Your task to perform on an android device: Show me the alarms in the clock app Image 0: 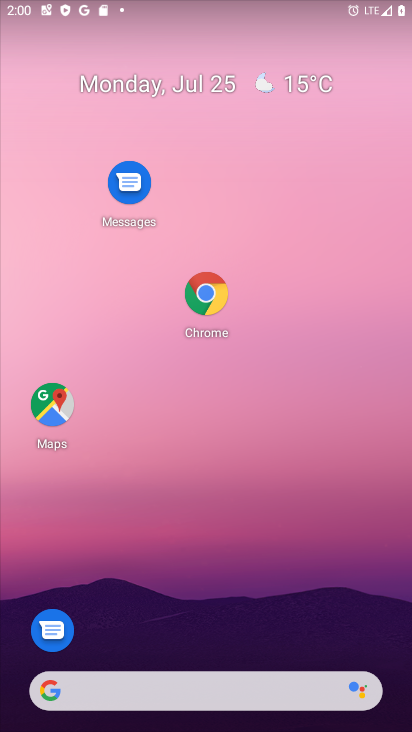
Step 0: drag from (278, 590) to (371, 11)
Your task to perform on an android device: Show me the alarms in the clock app Image 1: 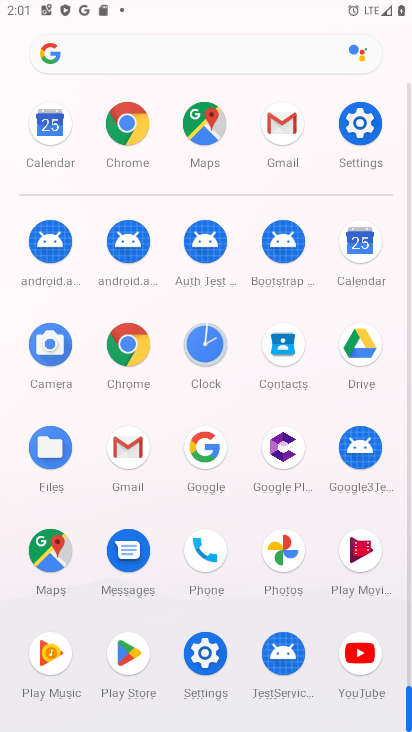
Step 1: click (212, 350)
Your task to perform on an android device: Show me the alarms in the clock app Image 2: 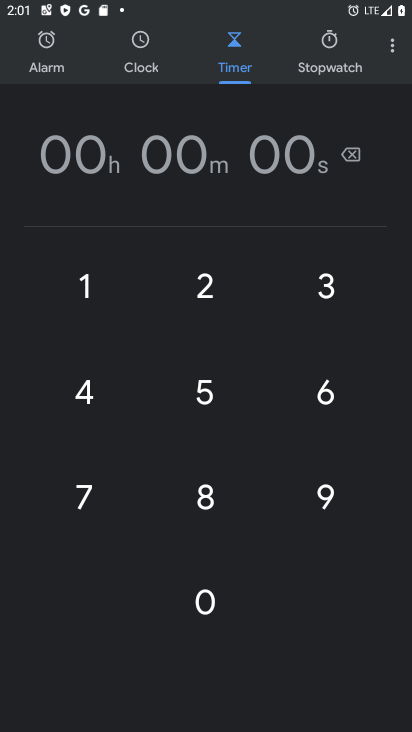
Step 2: click (63, 62)
Your task to perform on an android device: Show me the alarms in the clock app Image 3: 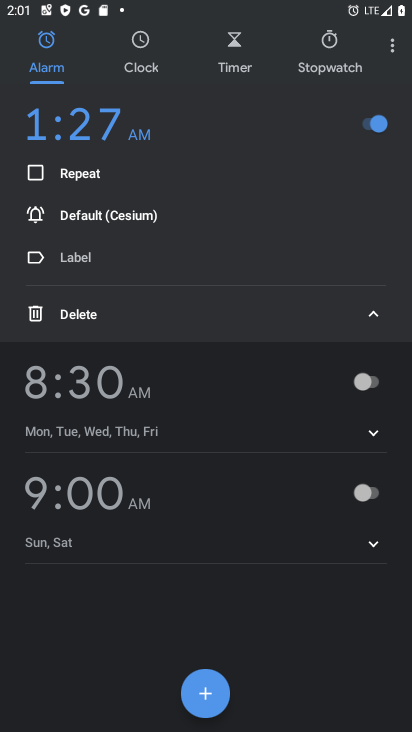
Step 3: task complete